Your task to perform on an android device: Go to Maps Image 0: 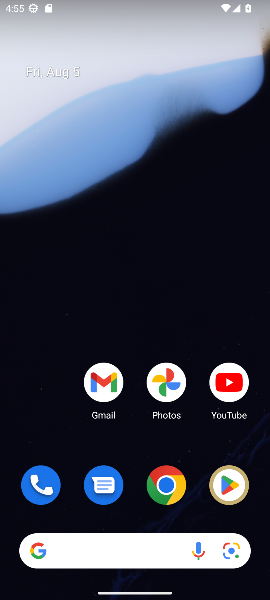
Step 0: drag from (135, 440) to (114, 89)
Your task to perform on an android device: Go to Maps Image 1: 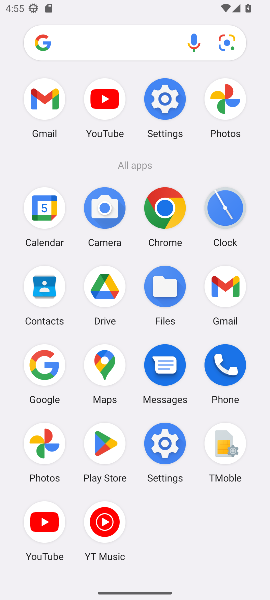
Step 1: click (112, 364)
Your task to perform on an android device: Go to Maps Image 2: 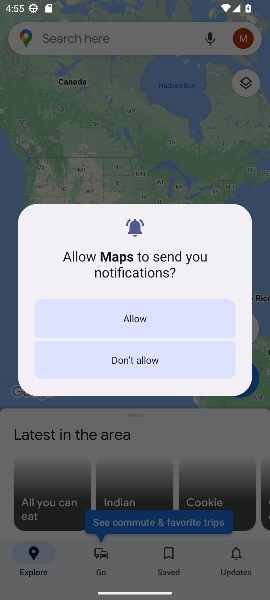
Step 2: click (115, 316)
Your task to perform on an android device: Go to Maps Image 3: 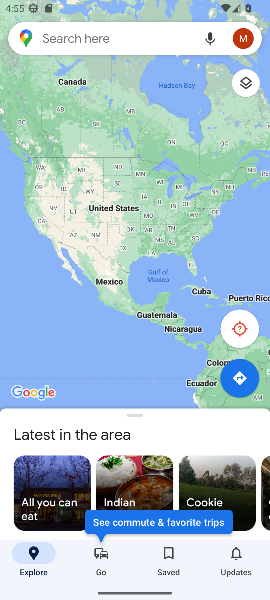
Step 3: task complete